Your task to perform on an android device: check google app version Image 0: 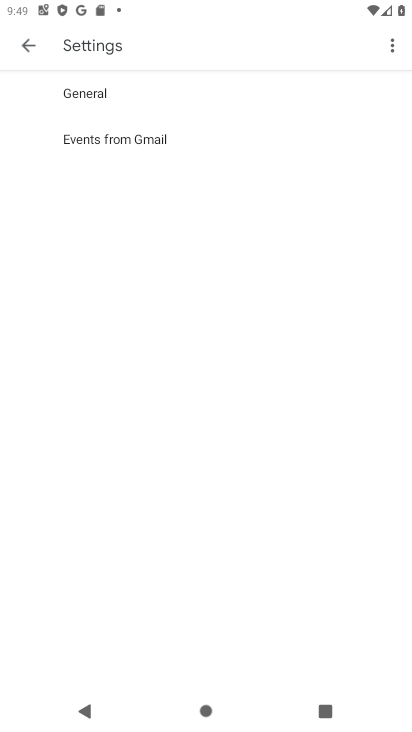
Step 0: press home button
Your task to perform on an android device: check google app version Image 1: 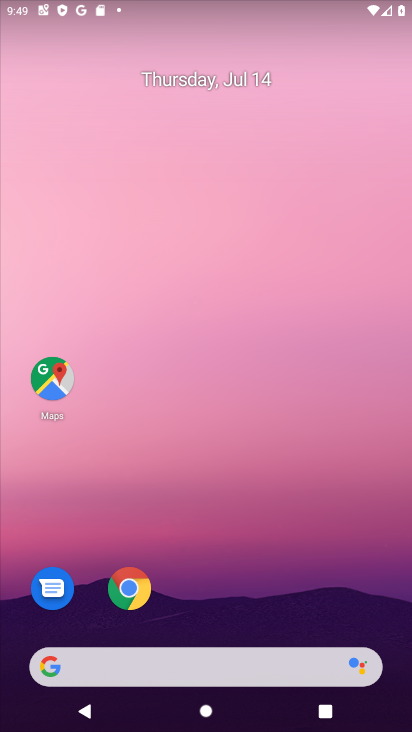
Step 1: drag from (174, 654) to (318, 160)
Your task to perform on an android device: check google app version Image 2: 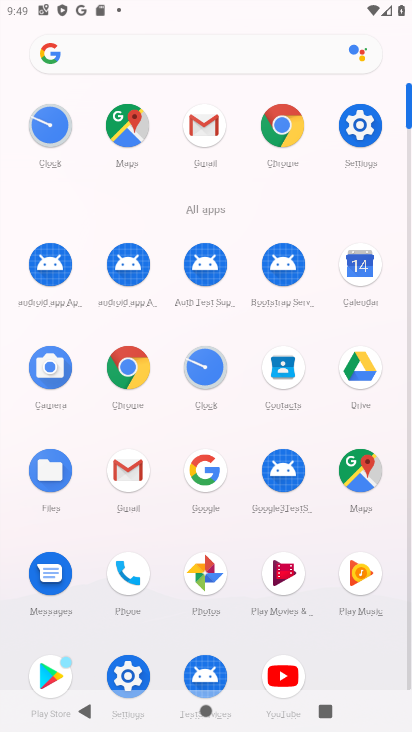
Step 2: click (209, 475)
Your task to perform on an android device: check google app version Image 3: 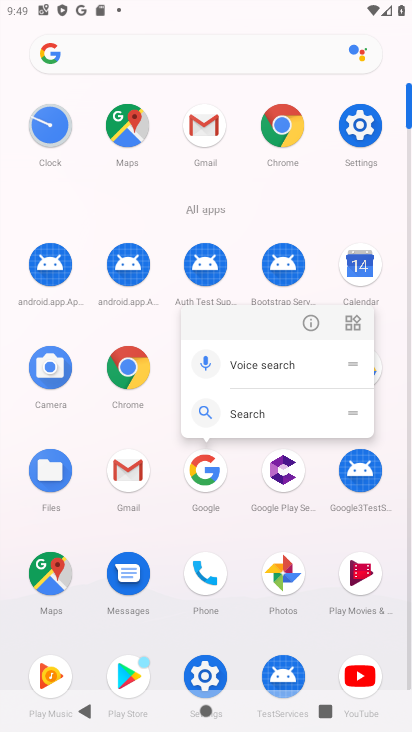
Step 3: click (314, 322)
Your task to perform on an android device: check google app version Image 4: 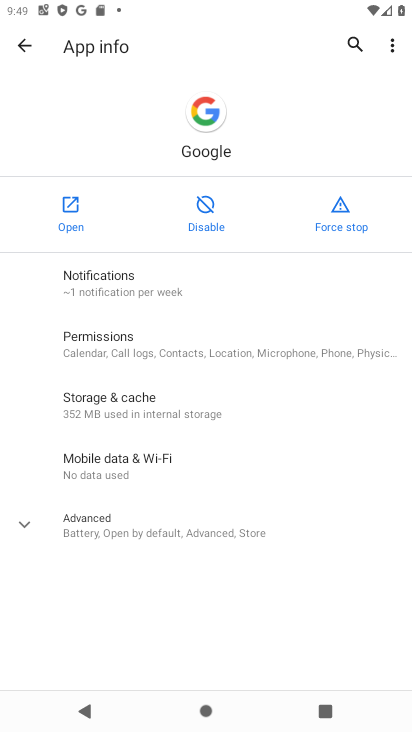
Step 4: click (98, 524)
Your task to perform on an android device: check google app version Image 5: 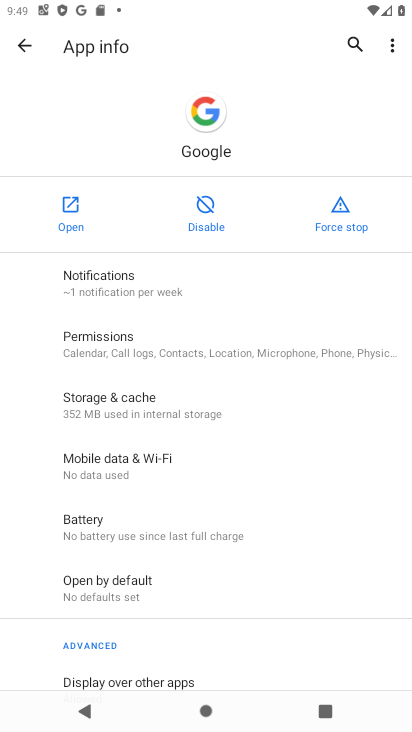
Step 5: task complete